Your task to perform on an android device: add a contact in the contacts app Image 0: 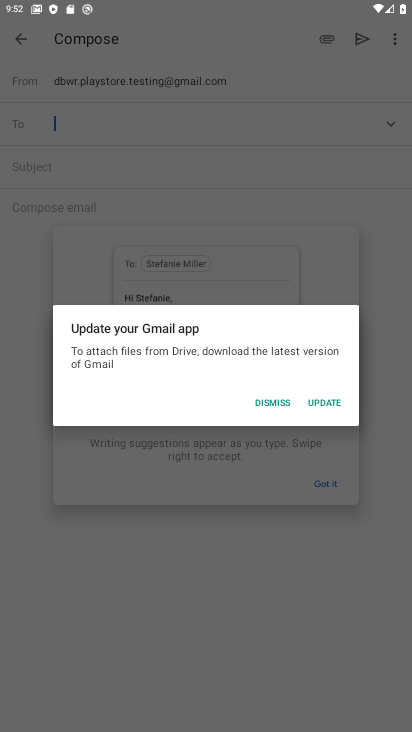
Step 0: press home button
Your task to perform on an android device: add a contact in the contacts app Image 1: 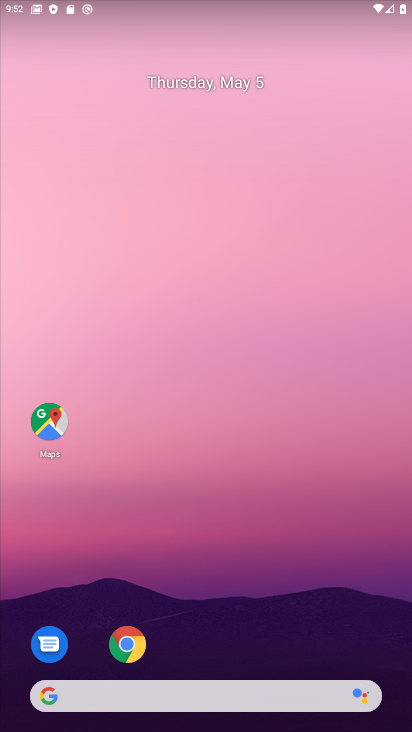
Step 1: drag from (200, 667) to (208, 0)
Your task to perform on an android device: add a contact in the contacts app Image 2: 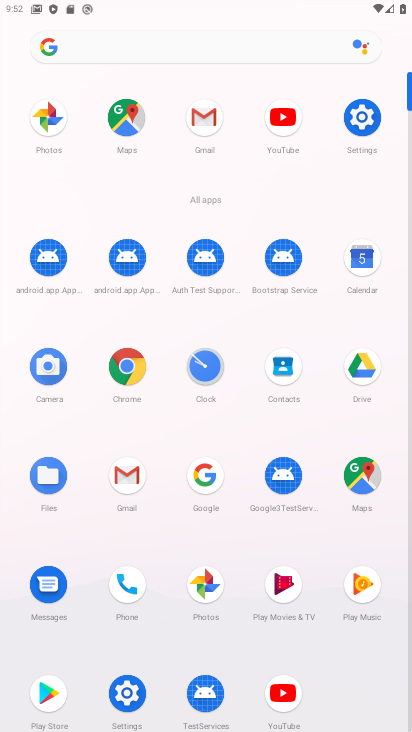
Step 2: click (125, 577)
Your task to perform on an android device: add a contact in the contacts app Image 3: 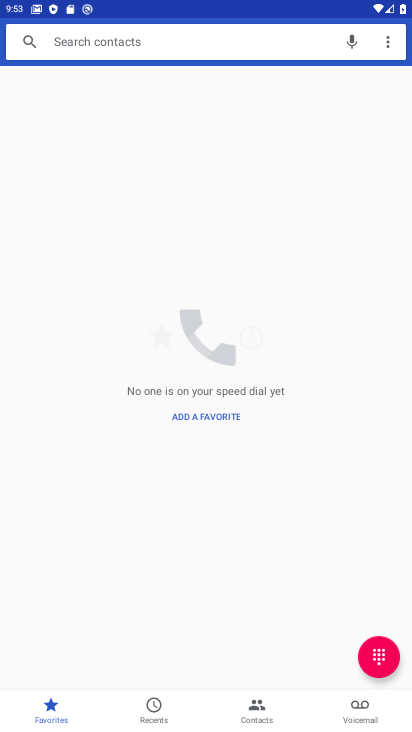
Step 3: click (257, 704)
Your task to perform on an android device: add a contact in the contacts app Image 4: 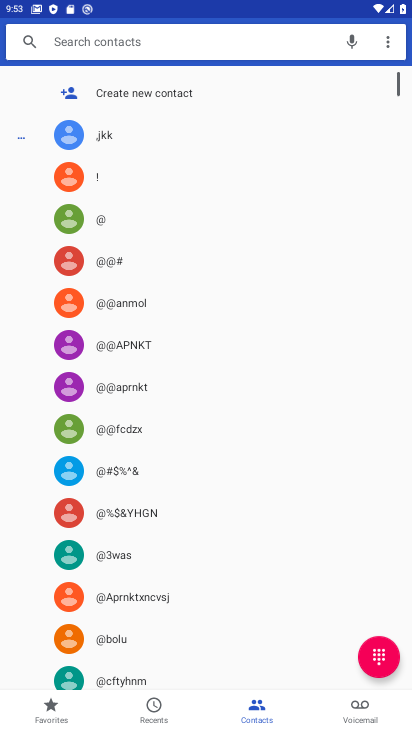
Step 4: click (137, 85)
Your task to perform on an android device: add a contact in the contacts app Image 5: 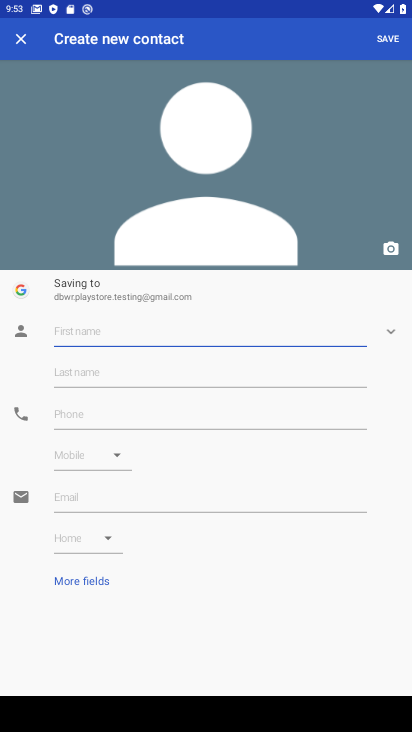
Step 5: type "ji"
Your task to perform on an android device: add a contact in the contacts app Image 6: 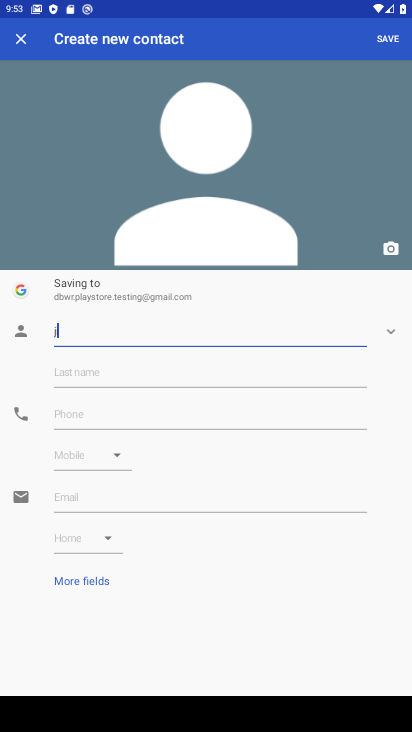
Step 6: click (330, 417)
Your task to perform on an android device: add a contact in the contacts app Image 7: 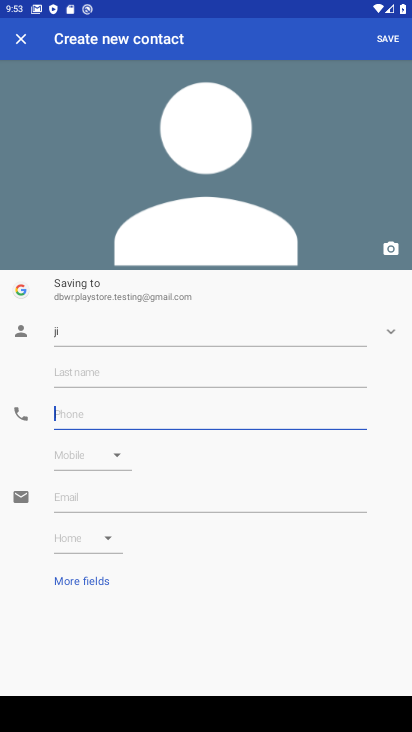
Step 7: type "94894"
Your task to perform on an android device: add a contact in the contacts app Image 8: 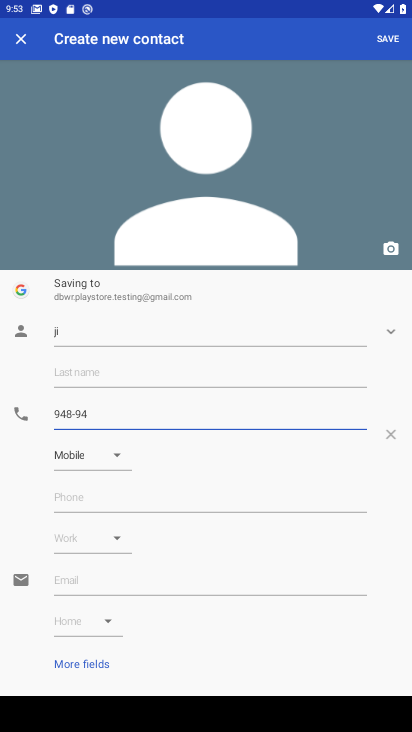
Step 8: click (388, 29)
Your task to perform on an android device: add a contact in the contacts app Image 9: 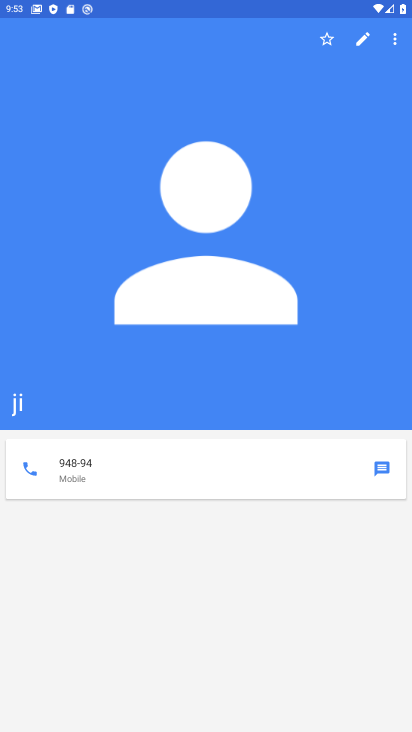
Step 9: task complete